Your task to perform on an android device: check the backup settings in the google photos Image 0: 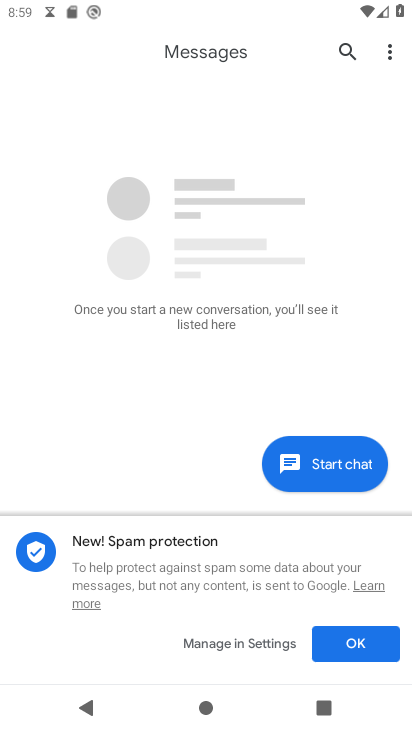
Step 0: press home button
Your task to perform on an android device: check the backup settings in the google photos Image 1: 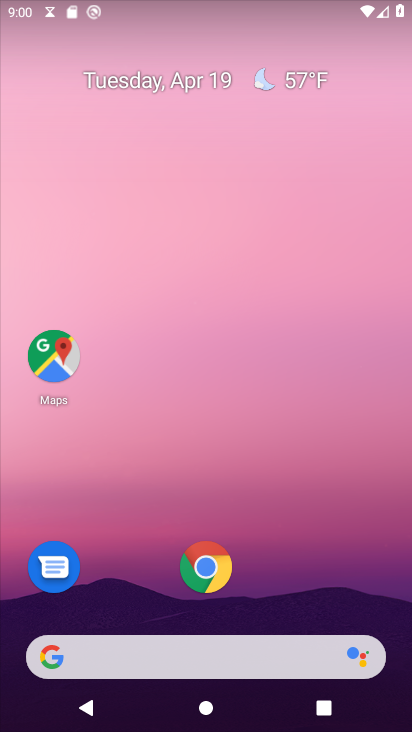
Step 1: drag from (364, 514) to (392, 108)
Your task to perform on an android device: check the backup settings in the google photos Image 2: 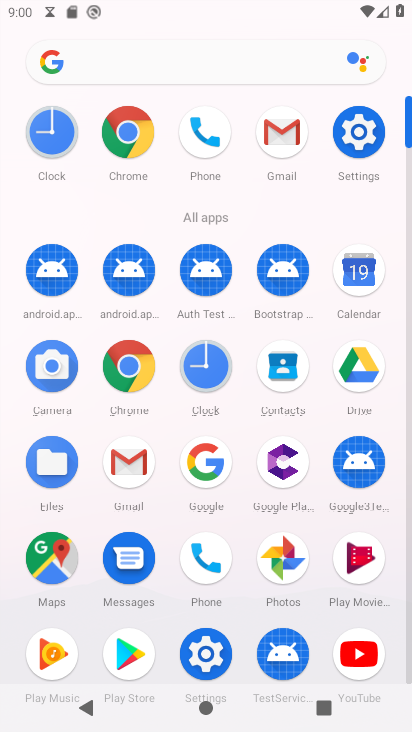
Step 2: click (270, 568)
Your task to perform on an android device: check the backup settings in the google photos Image 3: 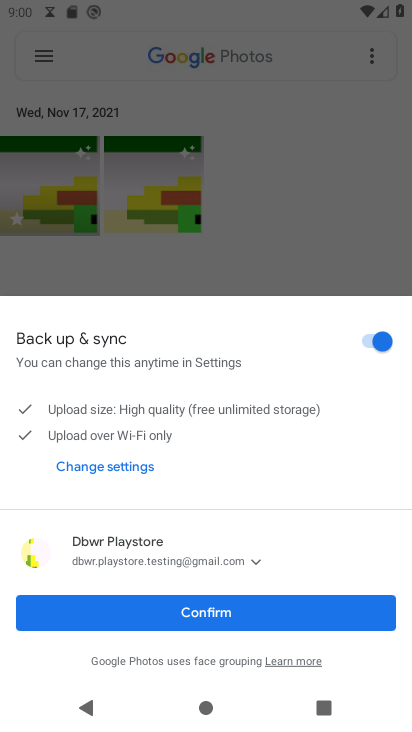
Step 3: click (193, 616)
Your task to perform on an android device: check the backup settings in the google photos Image 4: 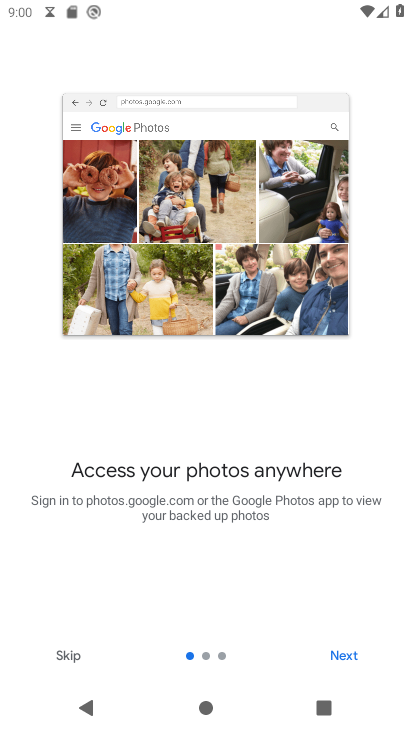
Step 4: click (67, 655)
Your task to perform on an android device: check the backup settings in the google photos Image 5: 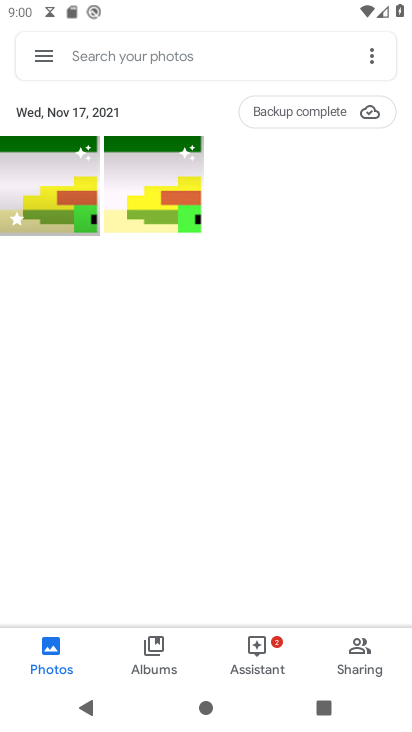
Step 5: click (54, 51)
Your task to perform on an android device: check the backup settings in the google photos Image 6: 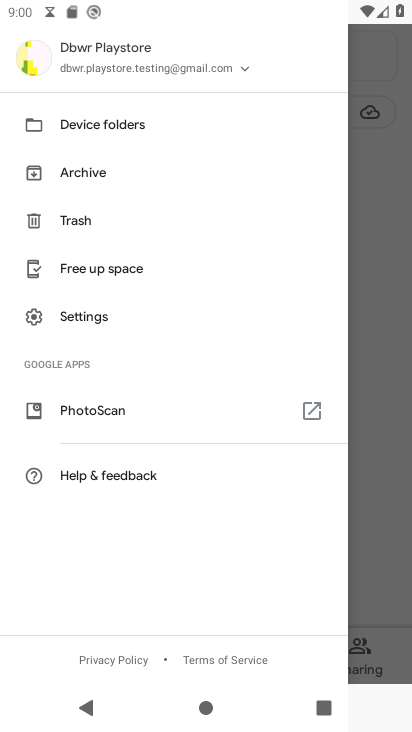
Step 6: click (69, 314)
Your task to perform on an android device: check the backup settings in the google photos Image 7: 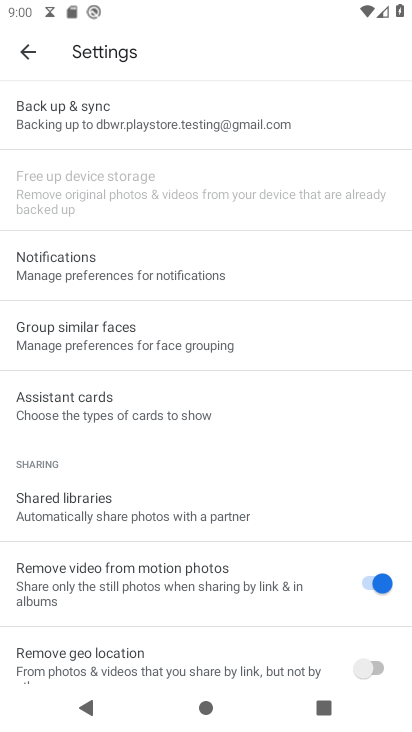
Step 7: click (74, 110)
Your task to perform on an android device: check the backup settings in the google photos Image 8: 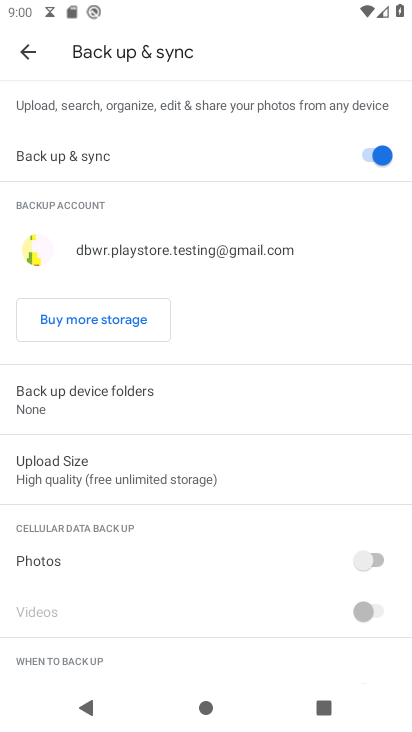
Step 8: task complete